Your task to perform on an android device: change keyboard looks Image 0: 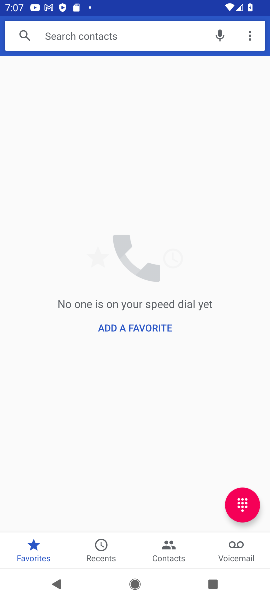
Step 0: press home button
Your task to perform on an android device: change keyboard looks Image 1: 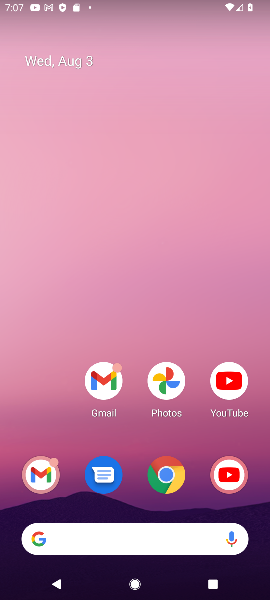
Step 1: drag from (153, 326) to (142, 65)
Your task to perform on an android device: change keyboard looks Image 2: 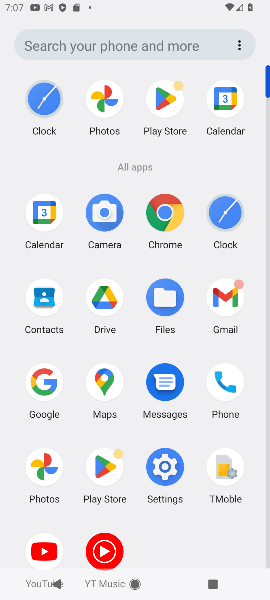
Step 2: click (170, 474)
Your task to perform on an android device: change keyboard looks Image 3: 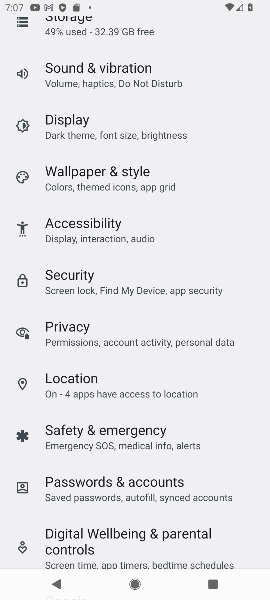
Step 3: drag from (189, 521) to (178, 266)
Your task to perform on an android device: change keyboard looks Image 4: 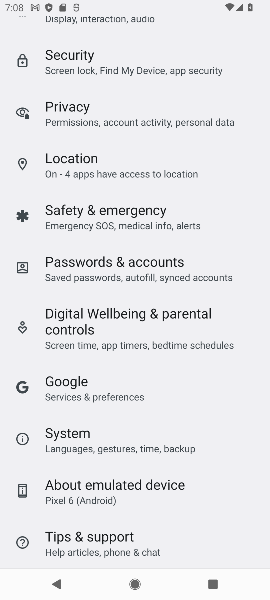
Step 4: click (90, 448)
Your task to perform on an android device: change keyboard looks Image 5: 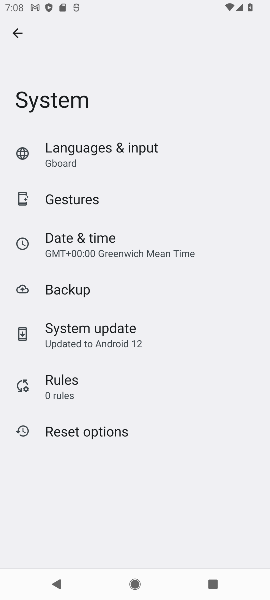
Step 5: click (90, 154)
Your task to perform on an android device: change keyboard looks Image 6: 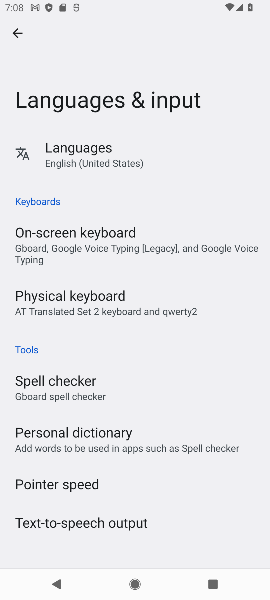
Step 6: click (91, 159)
Your task to perform on an android device: change keyboard looks Image 7: 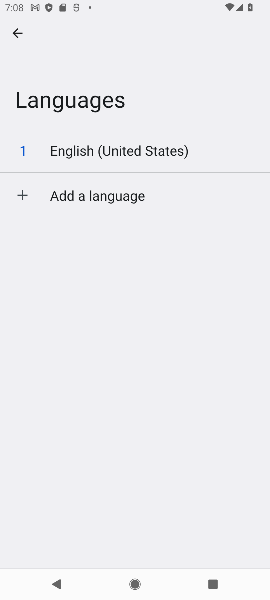
Step 7: click (18, 38)
Your task to perform on an android device: change keyboard looks Image 8: 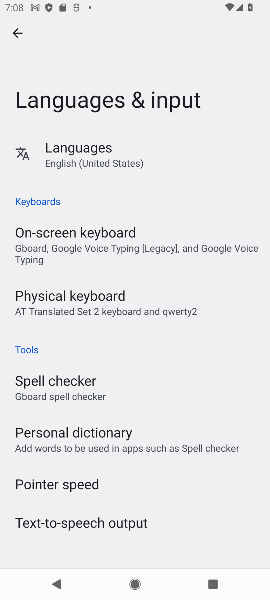
Step 8: click (104, 248)
Your task to perform on an android device: change keyboard looks Image 9: 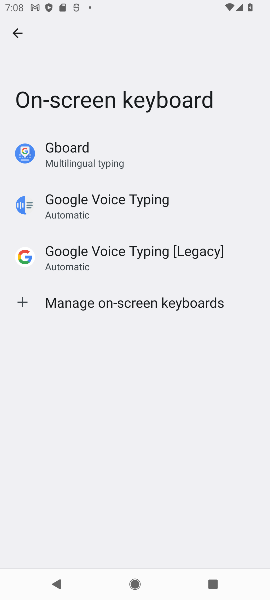
Step 9: click (125, 147)
Your task to perform on an android device: change keyboard looks Image 10: 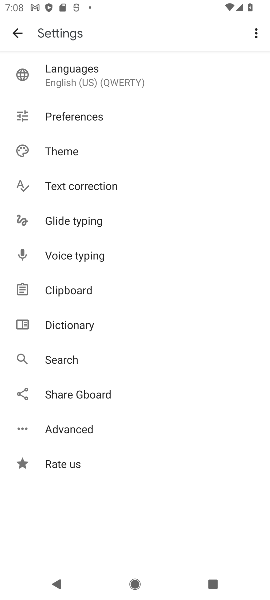
Step 10: click (69, 148)
Your task to perform on an android device: change keyboard looks Image 11: 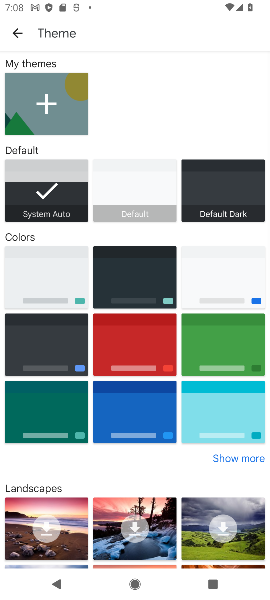
Step 11: click (132, 290)
Your task to perform on an android device: change keyboard looks Image 12: 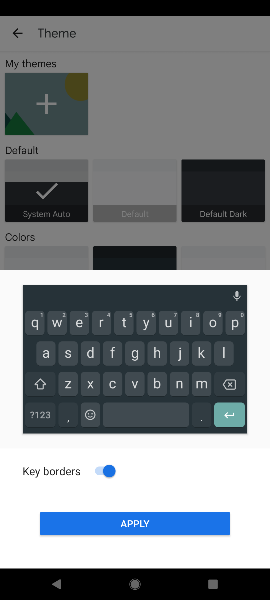
Step 12: click (211, 523)
Your task to perform on an android device: change keyboard looks Image 13: 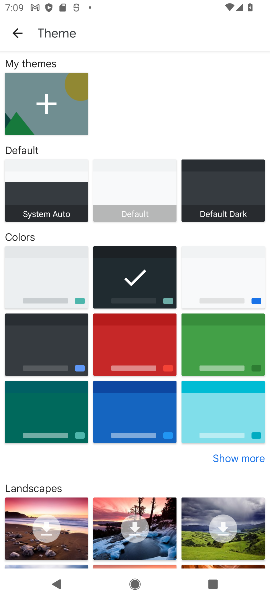
Step 13: task complete